Your task to perform on an android device: turn off picture-in-picture Image 0: 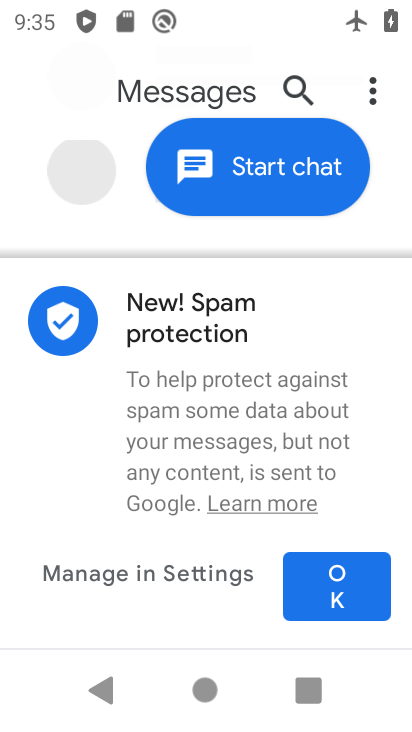
Step 0: press home button
Your task to perform on an android device: turn off picture-in-picture Image 1: 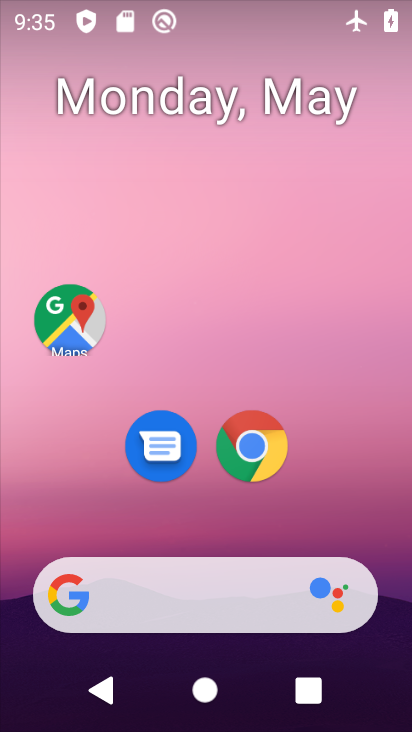
Step 1: drag from (74, 544) to (212, 47)
Your task to perform on an android device: turn off picture-in-picture Image 2: 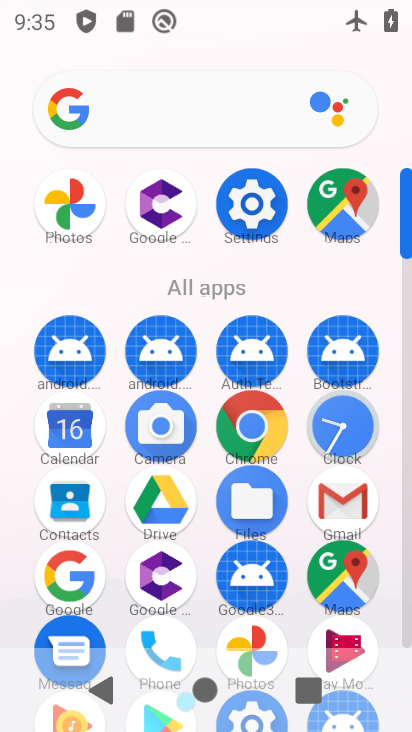
Step 2: drag from (160, 586) to (250, 297)
Your task to perform on an android device: turn off picture-in-picture Image 3: 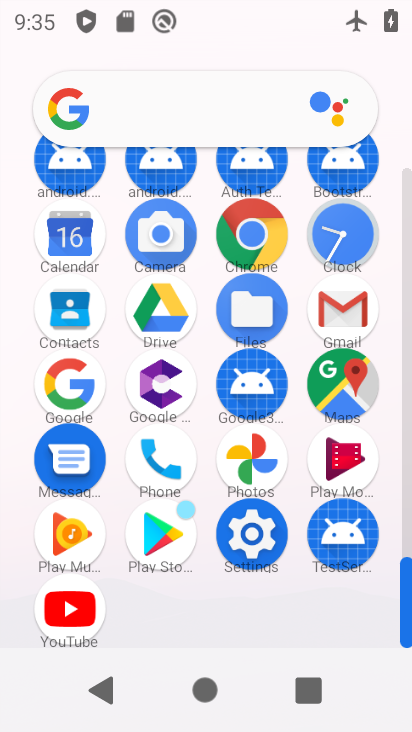
Step 3: click (259, 545)
Your task to perform on an android device: turn off picture-in-picture Image 4: 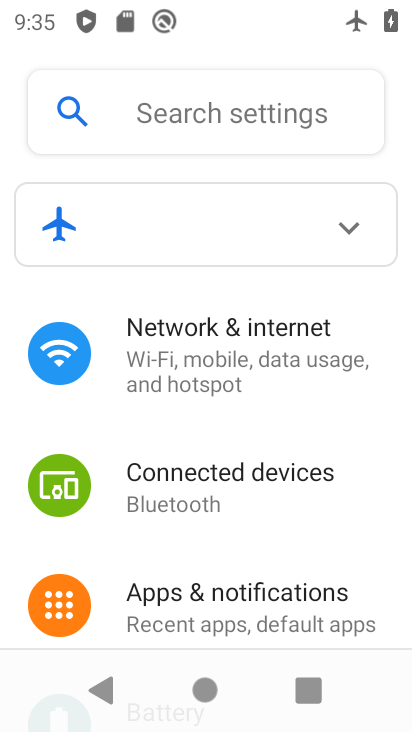
Step 4: click (229, 598)
Your task to perform on an android device: turn off picture-in-picture Image 5: 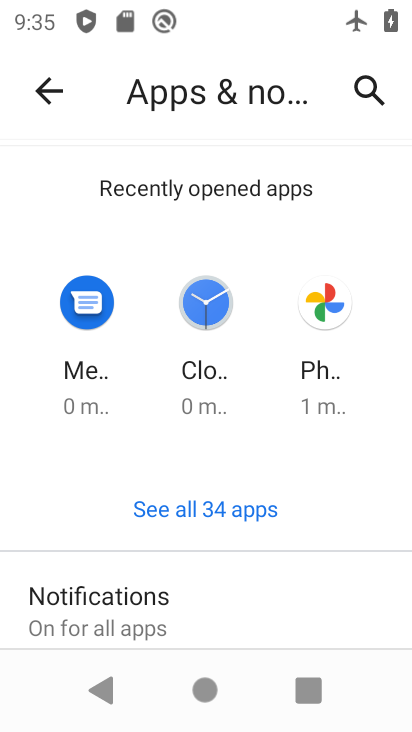
Step 5: drag from (195, 607) to (285, 229)
Your task to perform on an android device: turn off picture-in-picture Image 6: 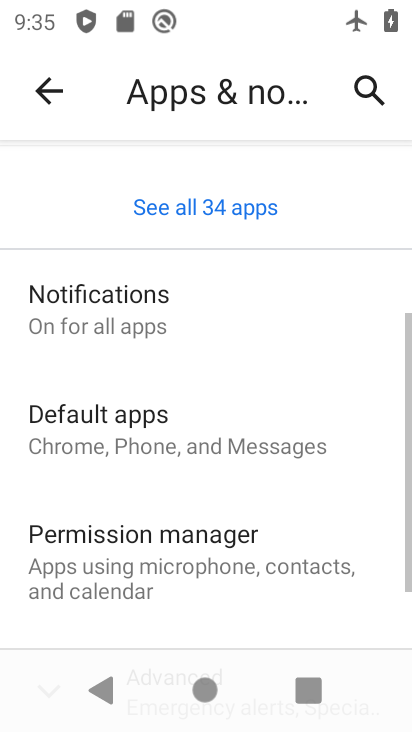
Step 6: drag from (234, 632) to (322, 258)
Your task to perform on an android device: turn off picture-in-picture Image 7: 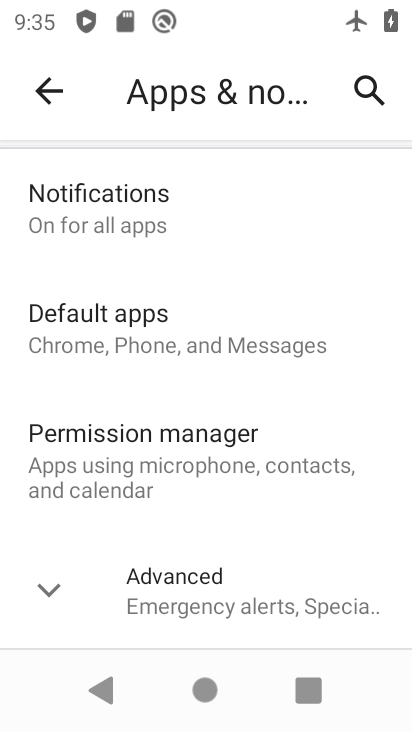
Step 7: click (250, 583)
Your task to perform on an android device: turn off picture-in-picture Image 8: 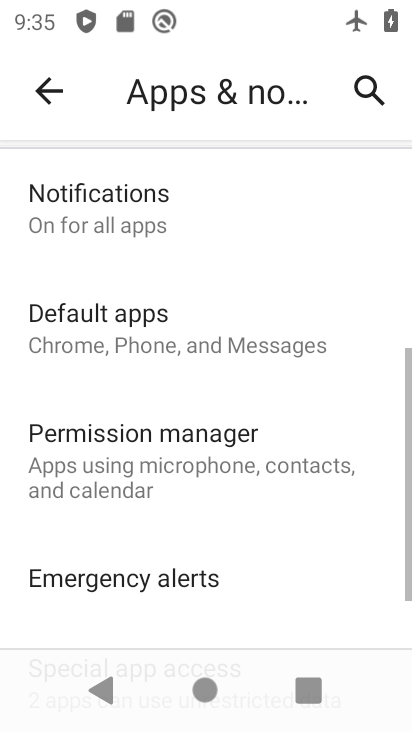
Step 8: drag from (235, 599) to (304, 248)
Your task to perform on an android device: turn off picture-in-picture Image 9: 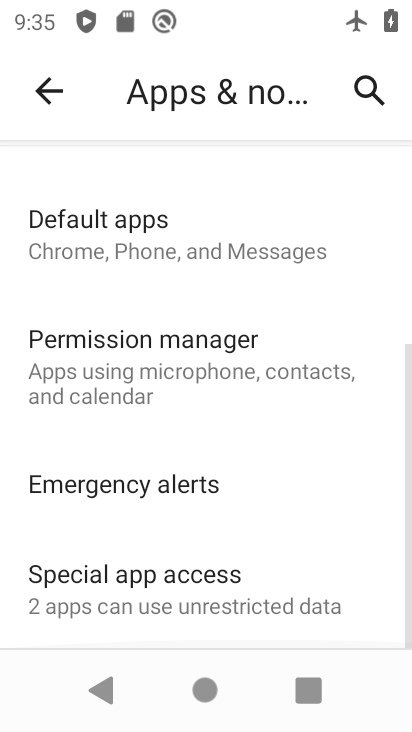
Step 9: click (220, 605)
Your task to perform on an android device: turn off picture-in-picture Image 10: 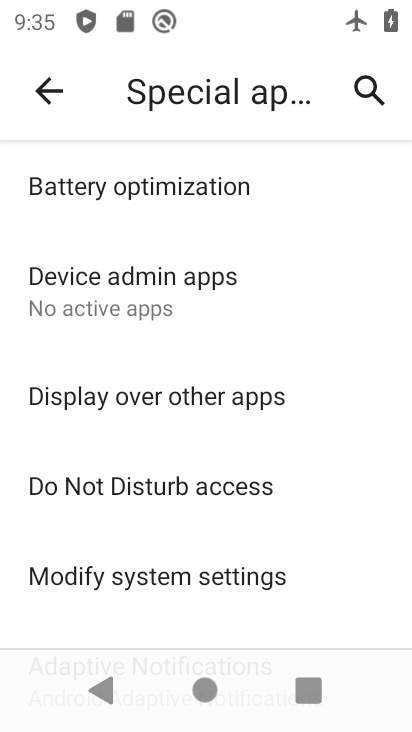
Step 10: drag from (168, 647) to (286, 162)
Your task to perform on an android device: turn off picture-in-picture Image 11: 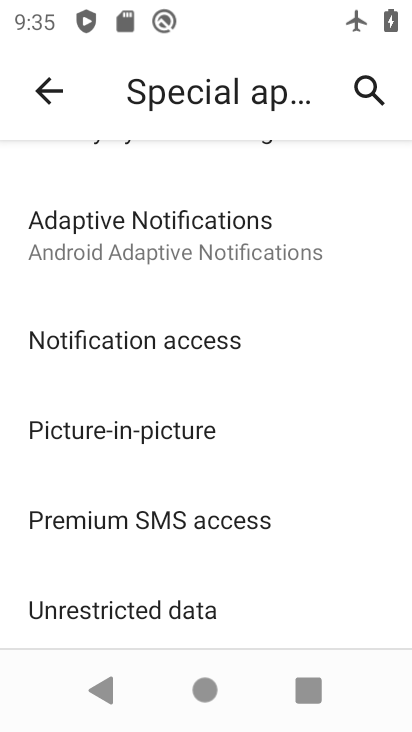
Step 11: drag from (157, 597) to (295, 214)
Your task to perform on an android device: turn off picture-in-picture Image 12: 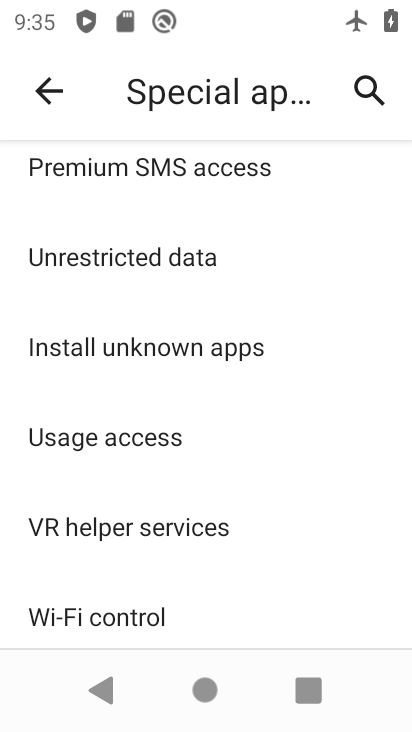
Step 12: drag from (196, 288) to (190, 655)
Your task to perform on an android device: turn off picture-in-picture Image 13: 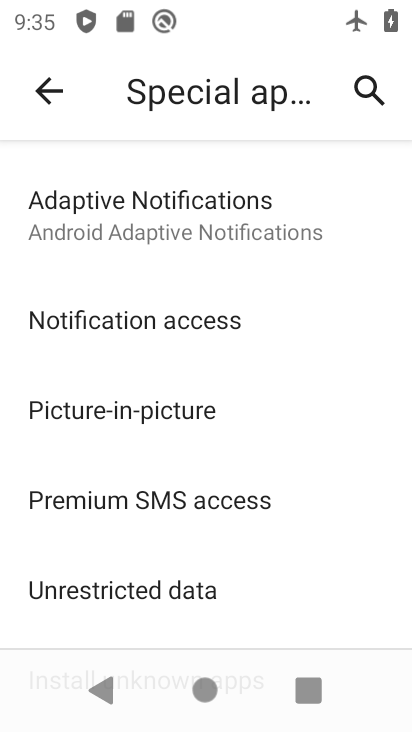
Step 13: click (194, 433)
Your task to perform on an android device: turn off picture-in-picture Image 14: 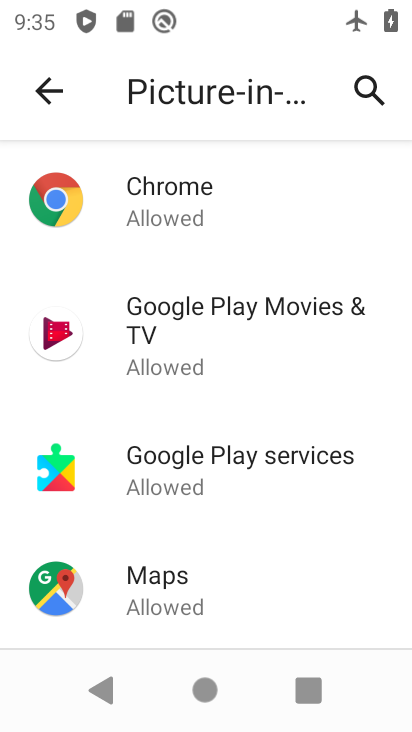
Step 14: click (283, 183)
Your task to perform on an android device: turn off picture-in-picture Image 15: 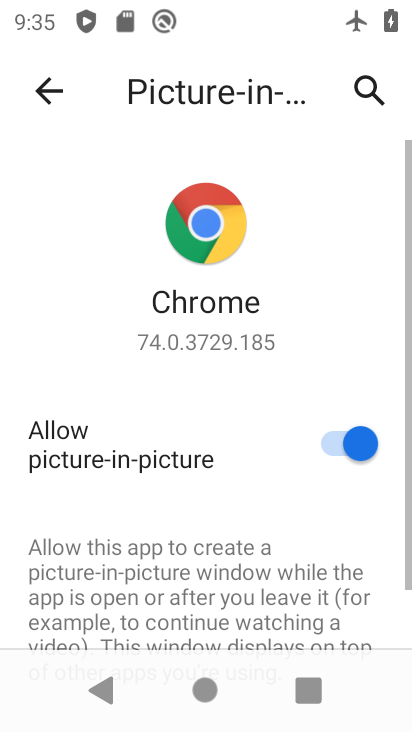
Step 15: click (341, 439)
Your task to perform on an android device: turn off picture-in-picture Image 16: 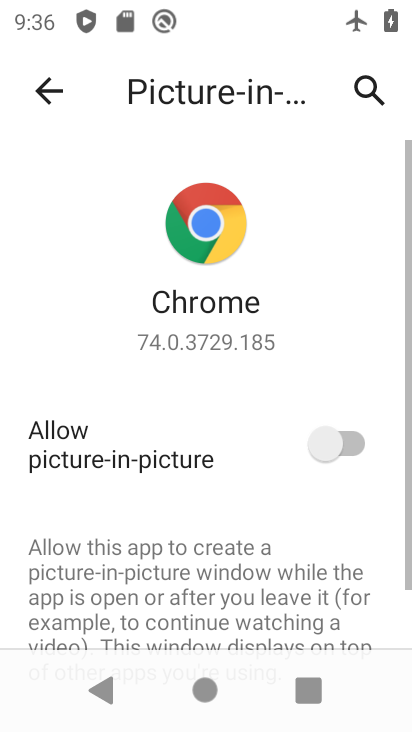
Step 16: click (58, 96)
Your task to perform on an android device: turn off picture-in-picture Image 17: 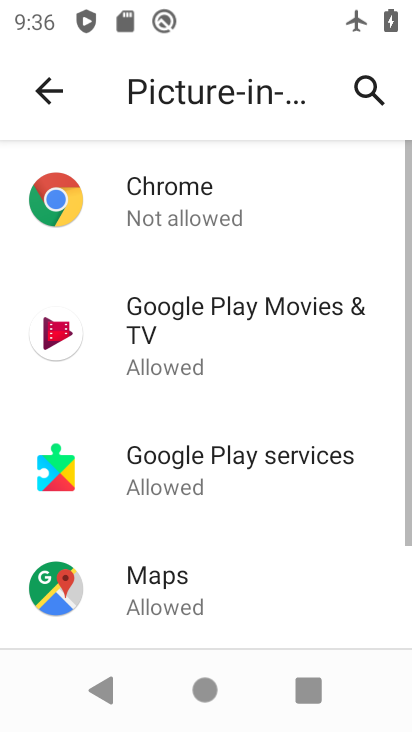
Step 17: click (288, 326)
Your task to perform on an android device: turn off picture-in-picture Image 18: 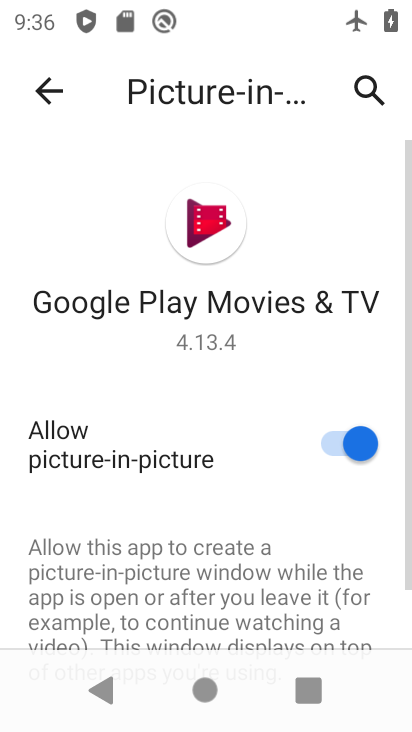
Step 18: click (319, 450)
Your task to perform on an android device: turn off picture-in-picture Image 19: 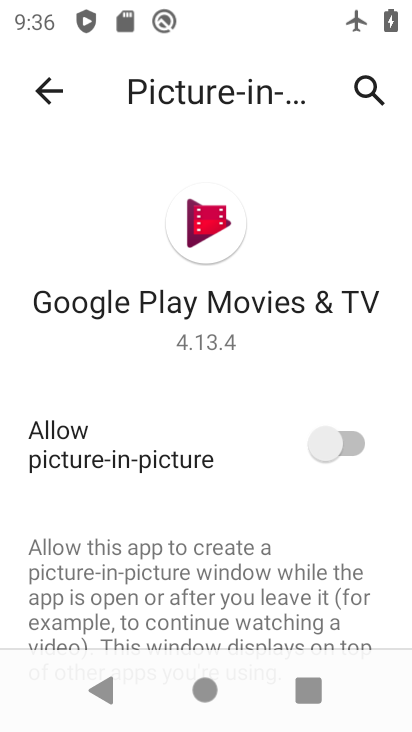
Step 19: click (69, 109)
Your task to perform on an android device: turn off picture-in-picture Image 20: 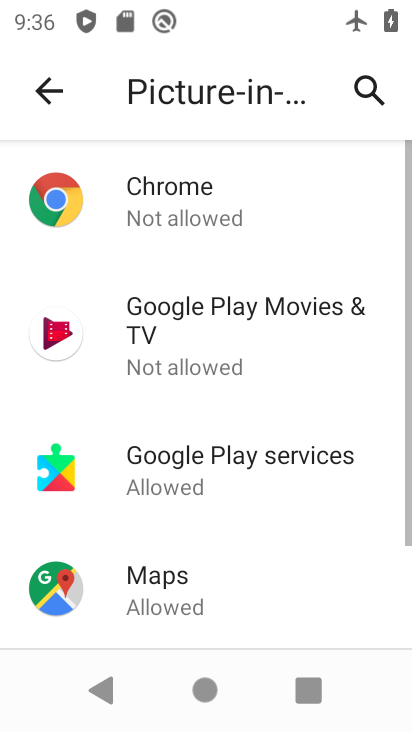
Step 20: click (293, 494)
Your task to perform on an android device: turn off picture-in-picture Image 21: 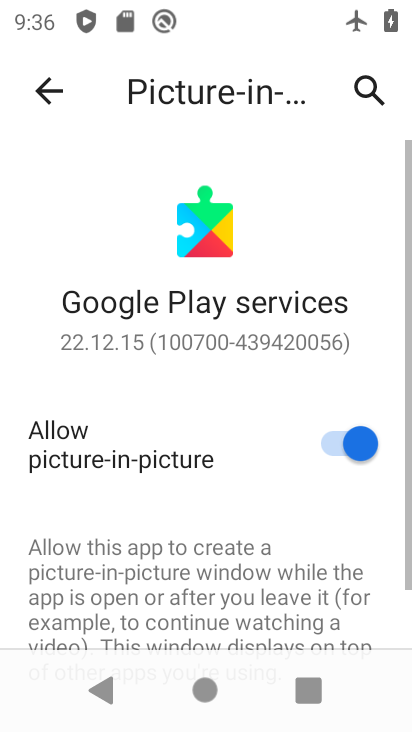
Step 21: click (341, 450)
Your task to perform on an android device: turn off picture-in-picture Image 22: 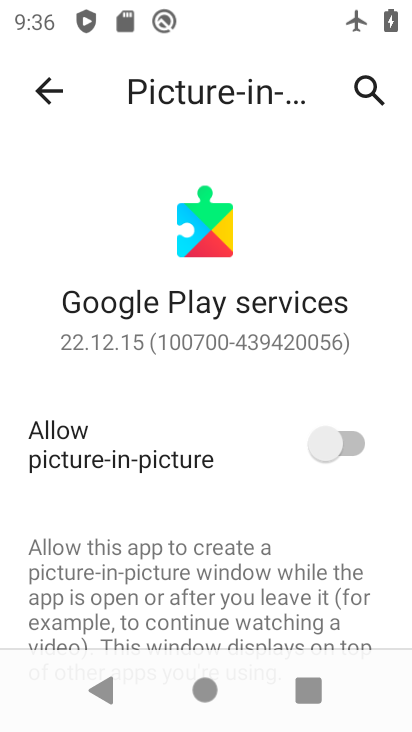
Step 22: click (66, 105)
Your task to perform on an android device: turn off picture-in-picture Image 23: 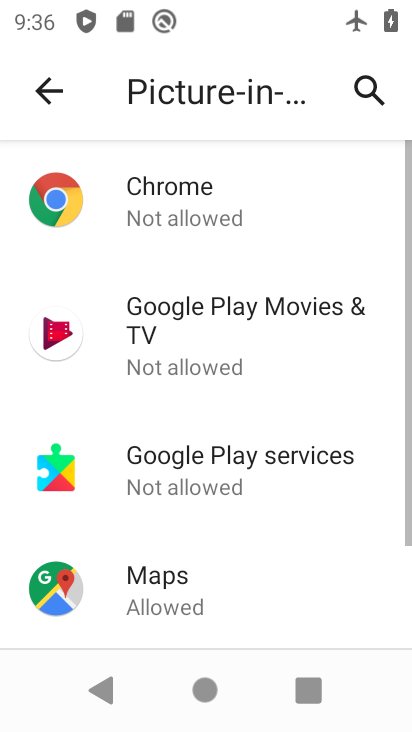
Step 23: drag from (250, 542) to (334, 174)
Your task to perform on an android device: turn off picture-in-picture Image 24: 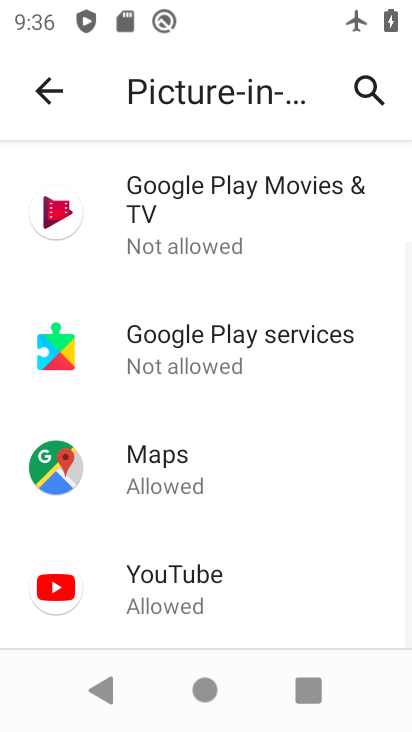
Step 24: click (234, 488)
Your task to perform on an android device: turn off picture-in-picture Image 25: 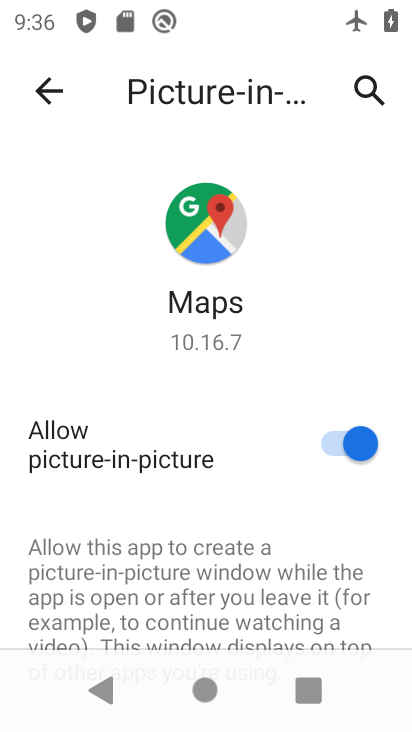
Step 25: click (344, 445)
Your task to perform on an android device: turn off picture-in-picture Image 26: 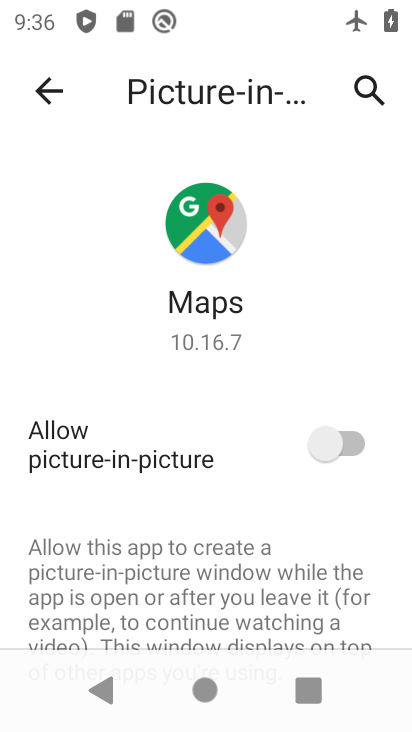
Step 26: click (65, 100)
Your task to perform on an android device: turn off picture-in-picture Image 27: 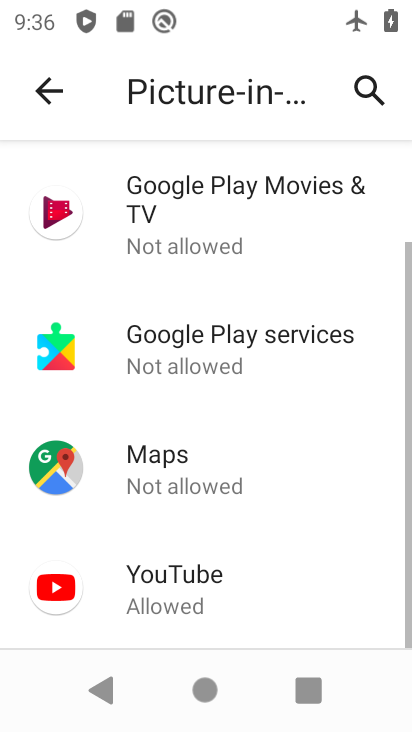
Step 27: click (250, 593)
Your task to perform on an android device: turn off picture-in-picture Image 28: 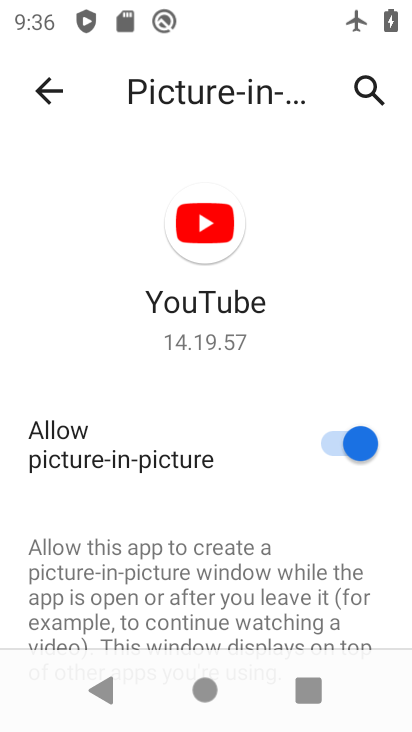
Step 28: click (353, 445)
Your task to perform on an android device: turn off picture-in-picture Image 29: 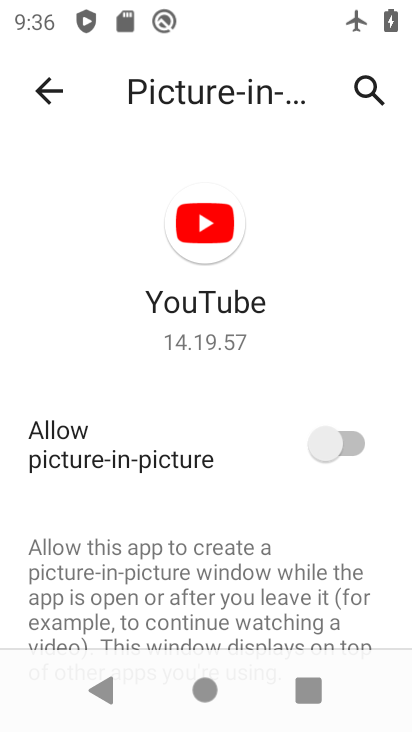
Step 29: click (49, 100)
Your task to perform on an android device: turn off picture-in-picture Image 30: 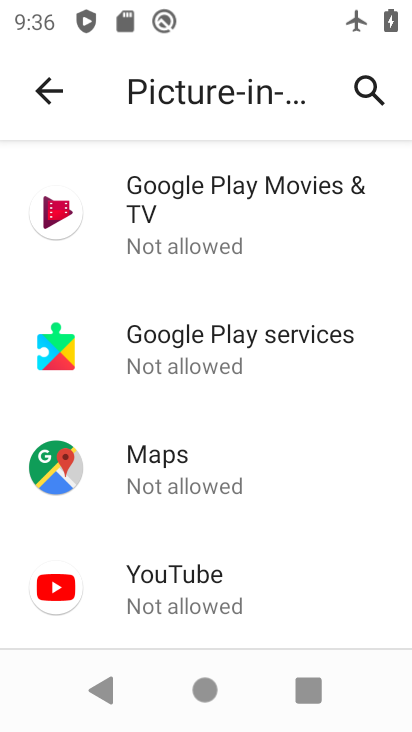
Step 30: task complete